Your task to perform on an android device: open a new tab in the chrome app Image 0: 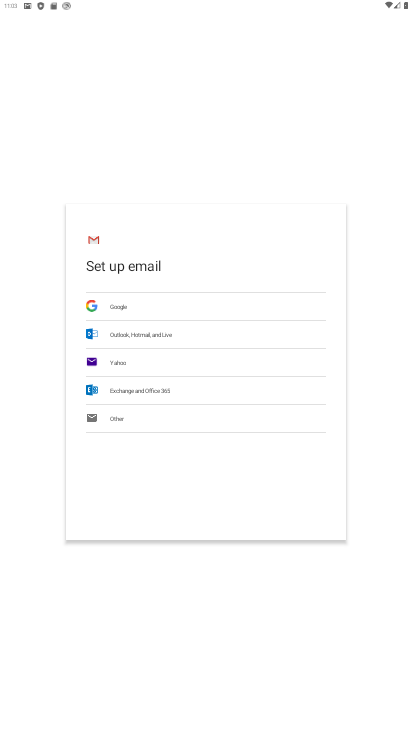
Step 0: press home button
Your task to perform on an android device: open a new tab in the chrome app Image 1: 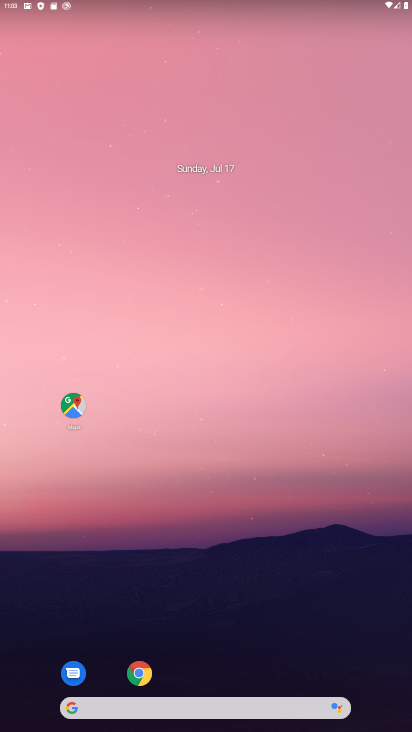
Step 1: drag from (266, 654) to (223, 74)
Your task to perform on an android device: open a new tab in the chrome app Image 2: 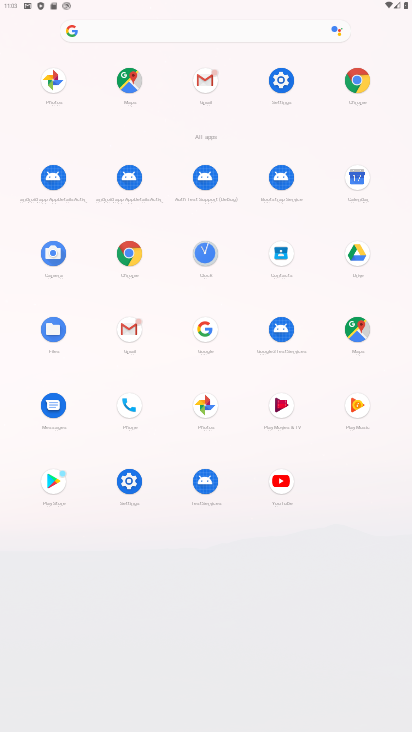
Step 2: click (361, 86)
Your task to perform on an android device: open a new tab in the chrome app Image 3: 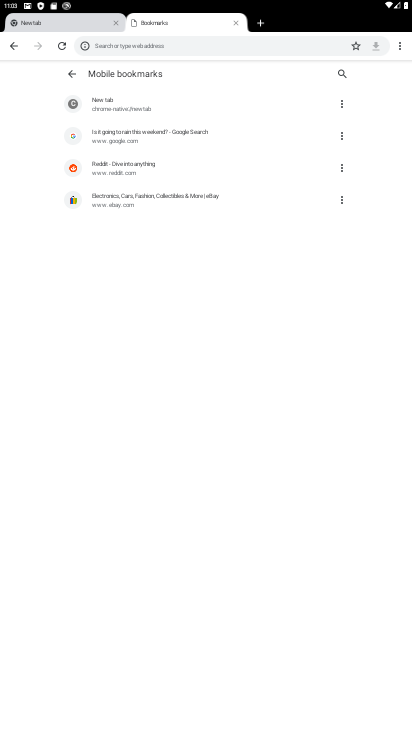
Step 3: click (259, 24)
Your task to perform on an android device: open a new tab in the chrome app Image 4: 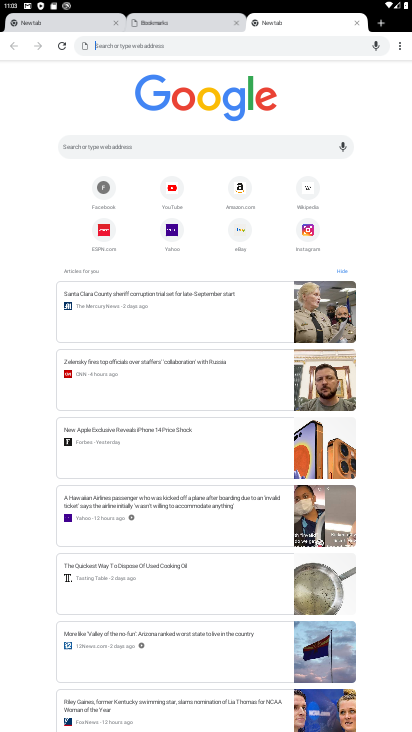
Step 4: task complete